Your task to perform on an android device: Open Google Chrome and open the bookmarks view Image 0: 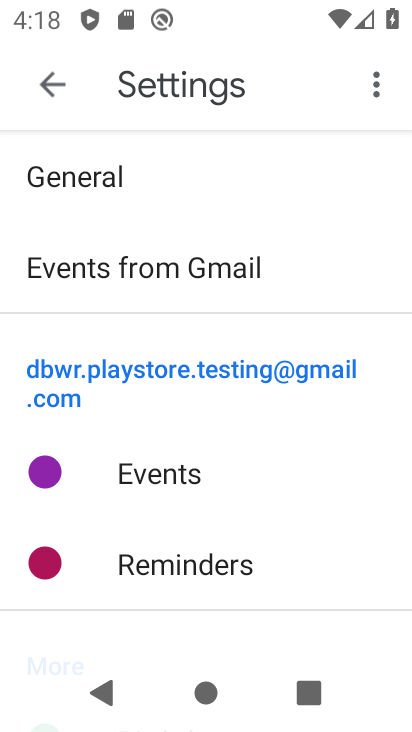
Step 0: press home button
Your task to perform on an android device: Open Google Chrome and open the bookmarks view Image 1: 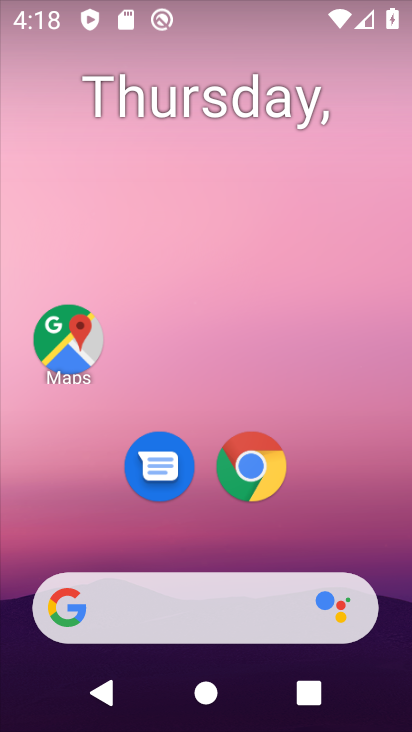
Step 1: click (247, 464)
Your task to perform on an android device: Open Google Chrome and open the bookmarks view Image 2: 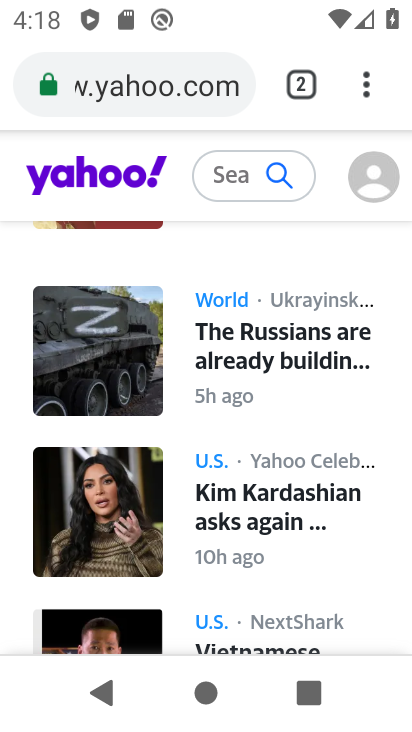
Step 2: click (369, 80)
Your task to perform on an android device: Open Google Chrome and open the bookmarks view Image 3: 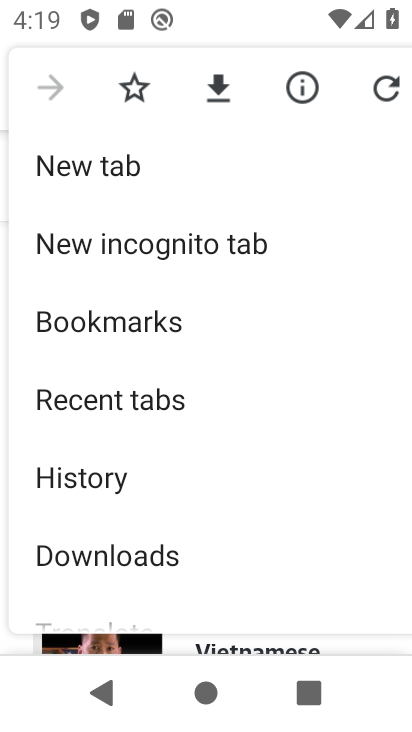
Step 3: click (204, 319)
Your task to perform on an android device: Open Google Chrome and open the bookmarks view Image 4: 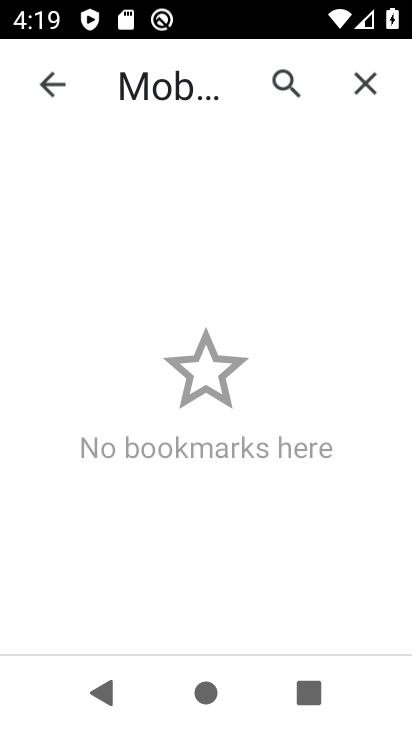
Step 4: task complete